Your task to perform on an android device: Open calendar and show me the second week of next month Image 0: 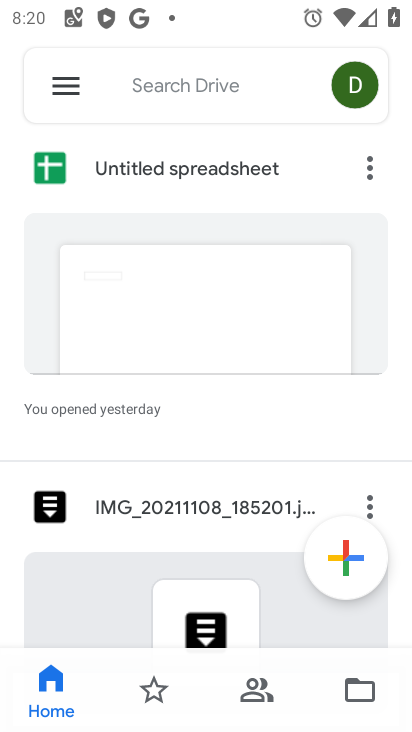
Step 0: press home button
Your task to perform on an android device: Open calendar and show me the second week of next month Image 1: 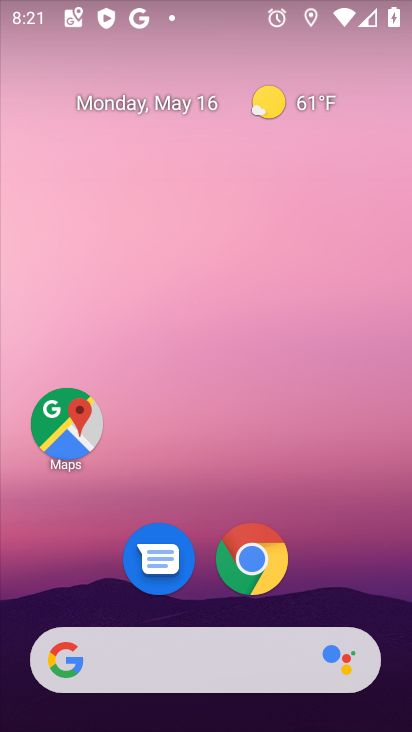
Step 1: drag from (381, 535) to (326, 172)
Your task to perform on an android device: Open calendar and show me the second week of next month Image 2: 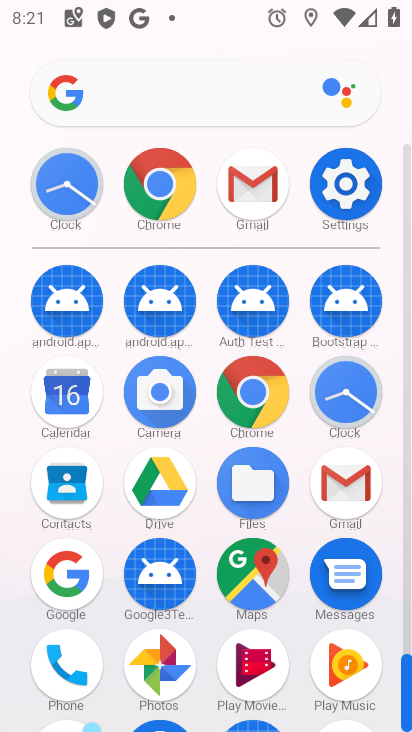
Step 2: click (49, 397)
Your task to perform on an android device: Open calendar and show me the second week of next month Image 3: 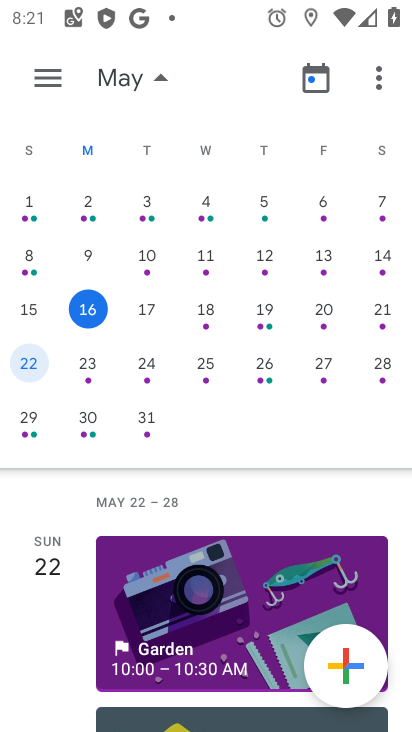
Step 3: drag from (371, 178) to (64, 181)
Your task to perform on an android device: Open calendar and show me the second week of next month Image 4: 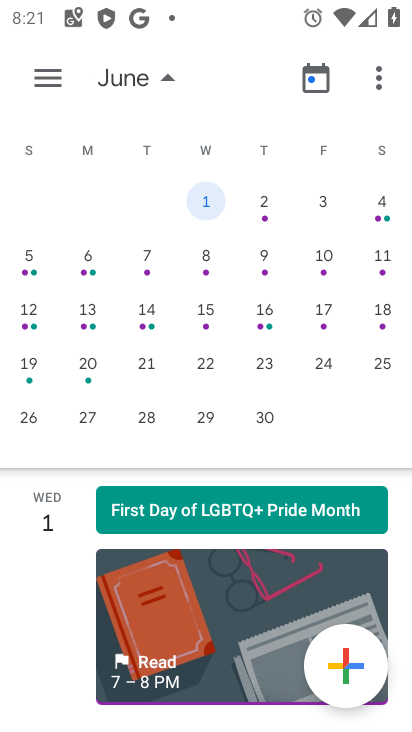
Step 4: click (29, 259)
Your task to perform on an android device: Open calendar and show me the second week of next month Image 5: 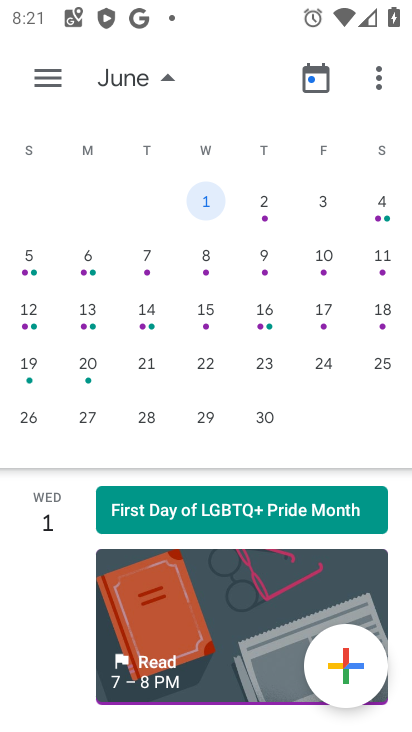
Step 5: click (30, 258)
Your task to perform on an android device: Open calendar and show me the second week of next month Image 6: 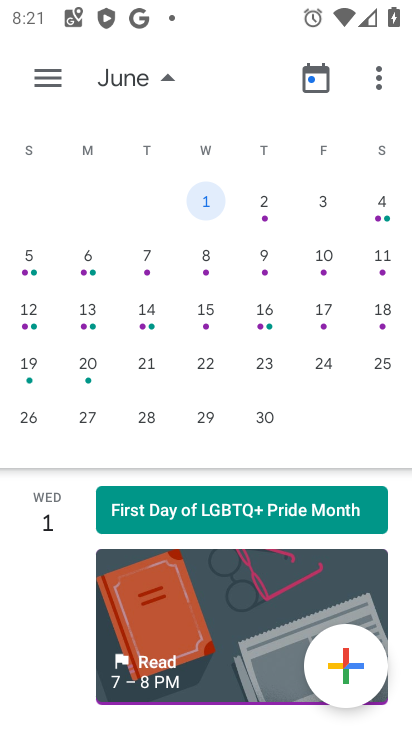
Step 6: click (32, 259)
Your task to perform on an android device: Open calendar and show me the second week of next month Image 7: 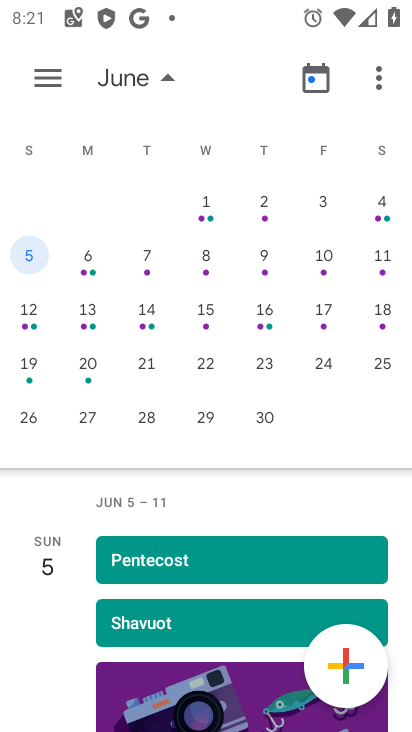
Step 7: task complete